Your task to perform on an android device: Is it going to rain this weekend? Image 0: 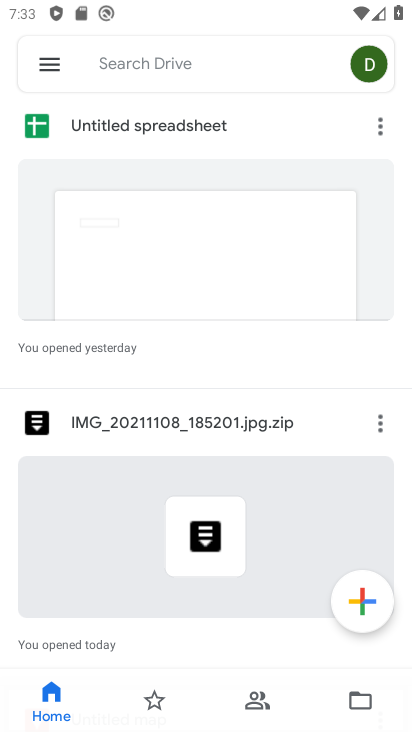
Step 0: press home button
Your task to perform on an android device: Is it going to rain this weekend? Image 1: 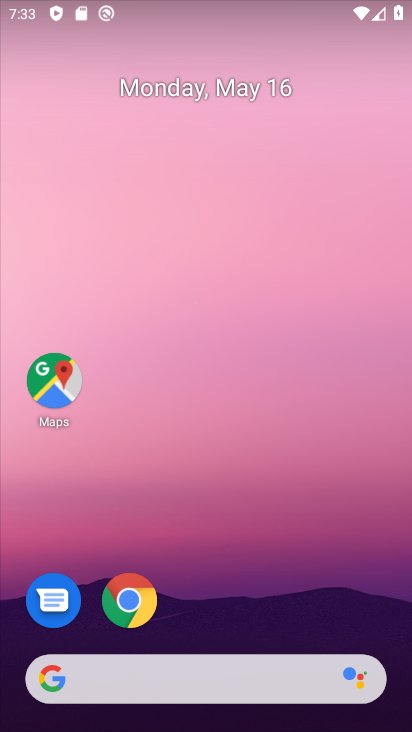
Step 1: click (56, 682)
Your task to perform on an android device: Is it going to rain this weekend? Image 2: 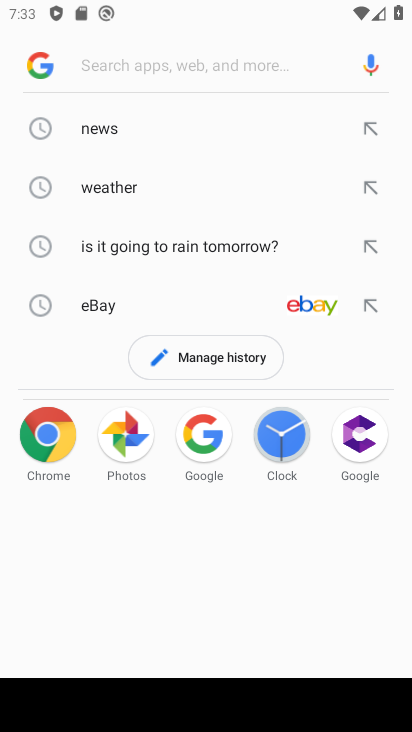
Step 2: click (121, 186)
Your task to perform on an android device: Is it going to rain this weekend? Image 3: 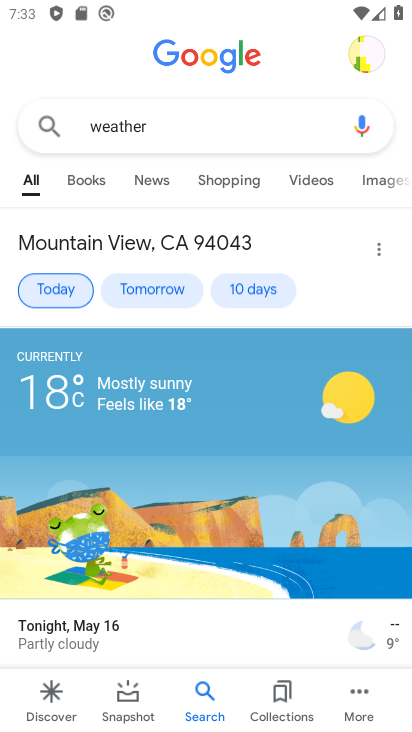
Step 3: click (256, 290)
Your task to perform on an android device: Is it going to rain this weekend? Image 4: 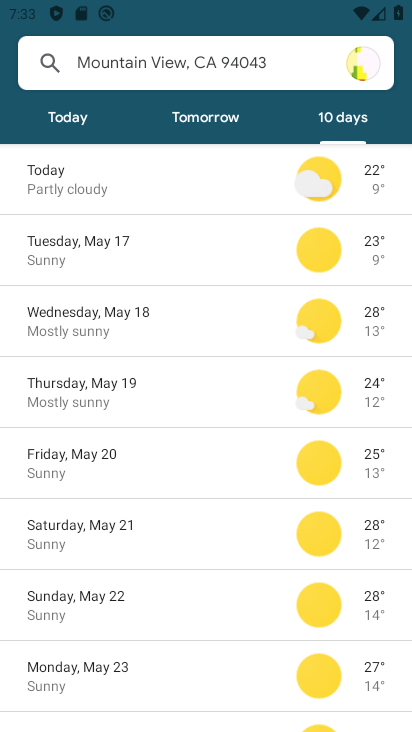
Step 4: click (121, 531)
Your task to perform on an android device: Is it going to rain this weekend? Image 5: 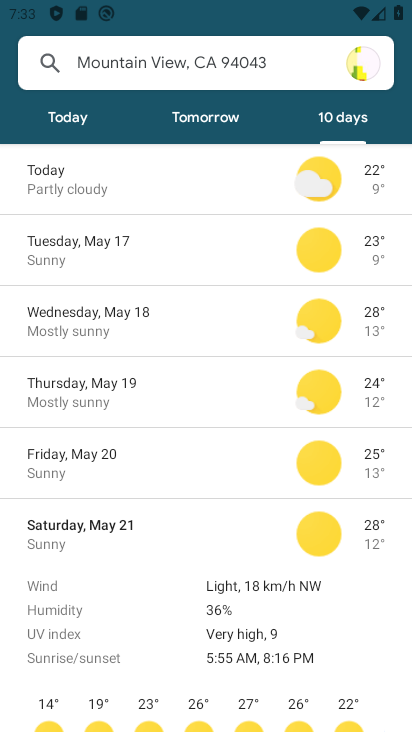
Step 5: task complete